Your task to perform on an android device: turn pop-ups on in chrome Image 0: 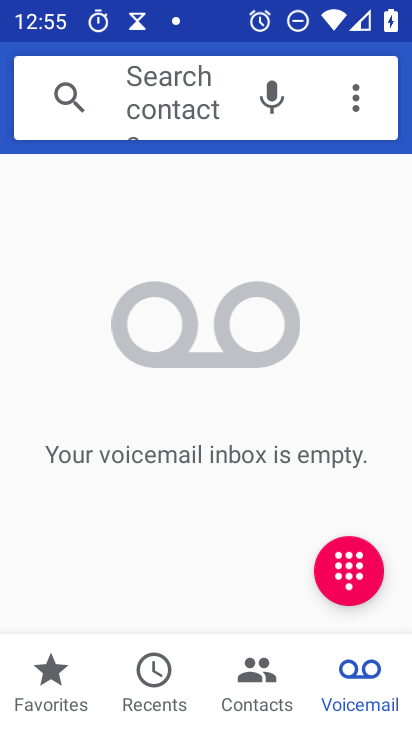
Step 0: press home button
Your task to perform on an android device: turn pop-ups on in chrome Image 1: 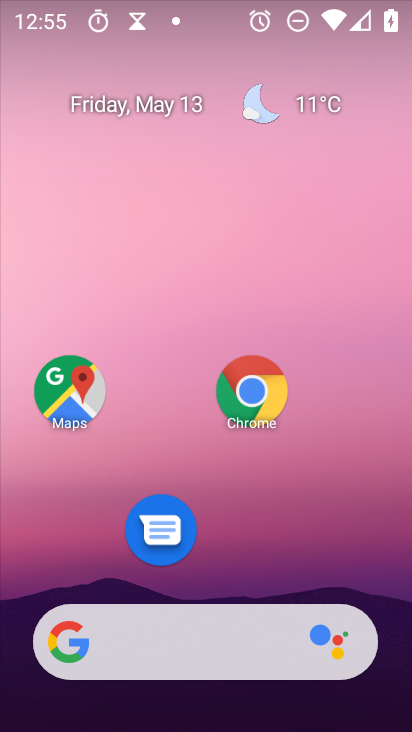
Step 1: click (261, 396)
Your task to perform on an android device: turn pop-ups on in chrome Image 2: 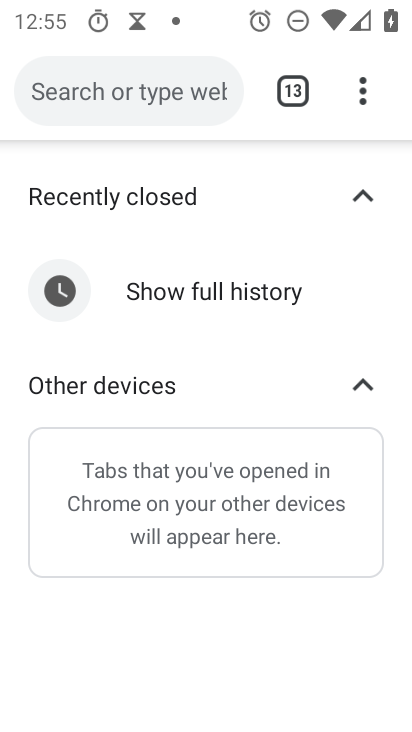
Step 2: drag from (364, 98) to (195, 545)
Your task to perform on an android device: turn pop-ups on in chrome Image 3: 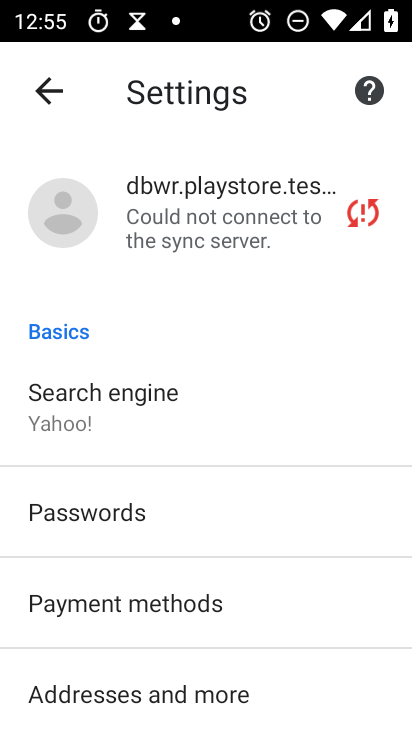
Step 3: drag from (151, 677) to (267, 125)
Your task to perform on an android device: turn pop-ups on in chrome Image 4: 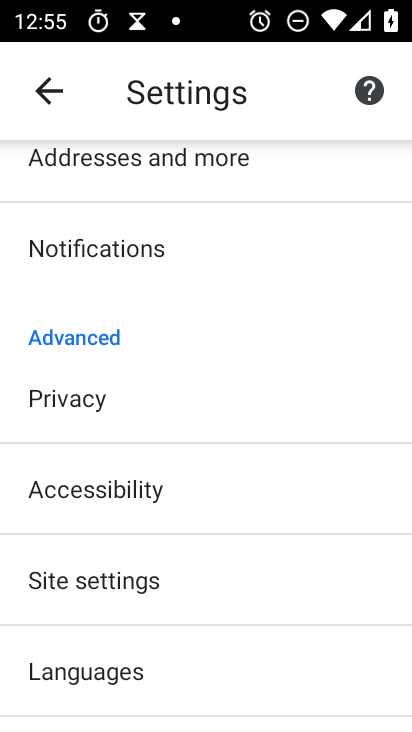
Step 4: click (93, 582)
Your task to perform on an android device: turn pop-ups on in chrome Image 5: 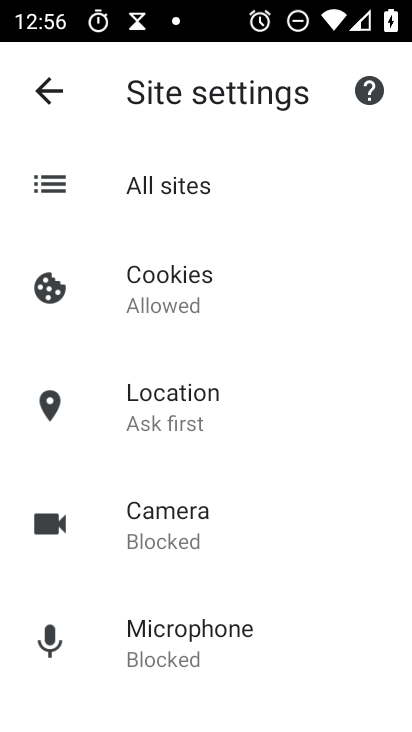
Step 5: drag from (281, 652) to (291, 125)
Your task to perform on an android device: turn pop-ups on in chrome Image 6: 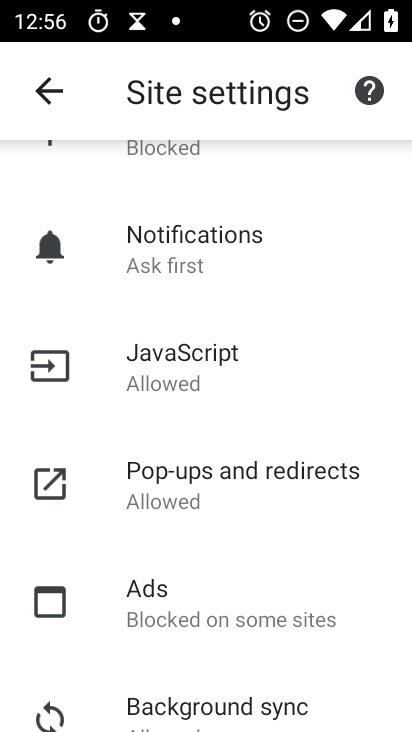
Step 6: click (182, 476)
Your task to perform on an android device: turn pop-ups on in chrome Image 7: 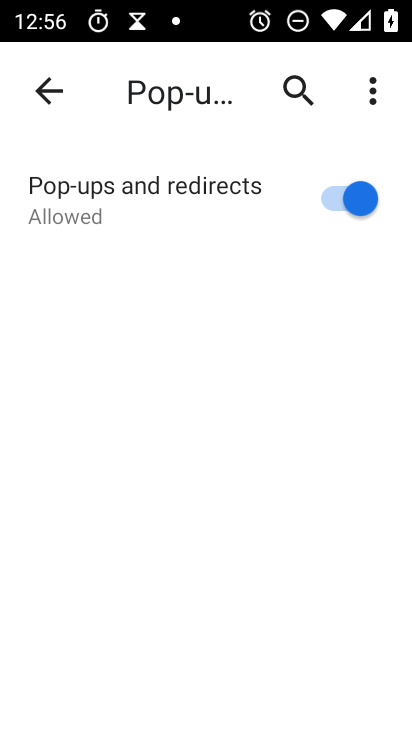
Step 7: task complete